Your task to perform on an android device: toggle airplane mode Image 0: 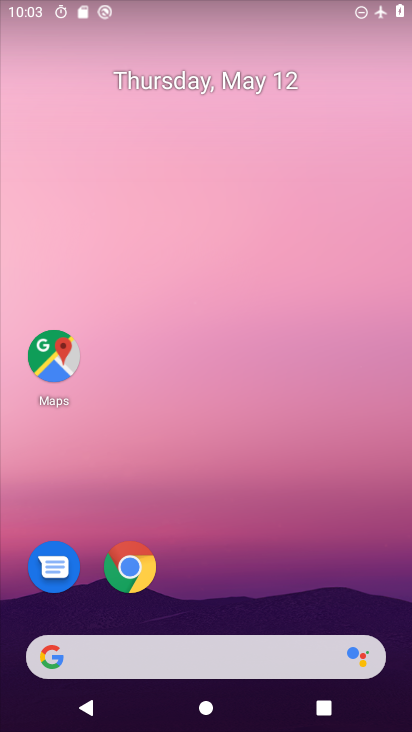
Step 0: drag from (244, 638) to (273, 153)
Your task to perform on an android device: toggle airplane mode Image 1: 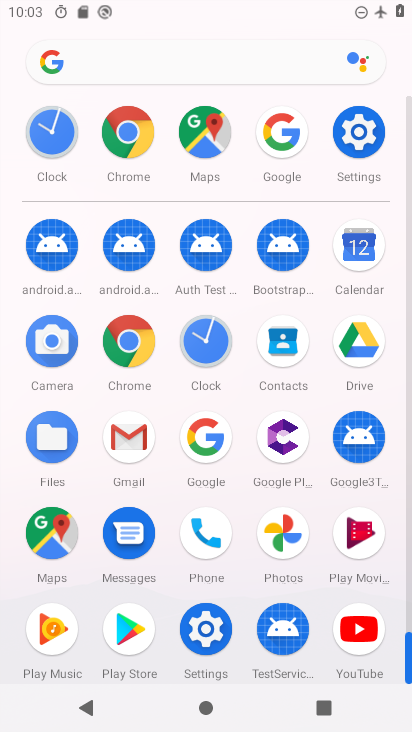
Step 1: click (382, 141)
Your task to perform on an android device: toggle airplane mode Image 2: 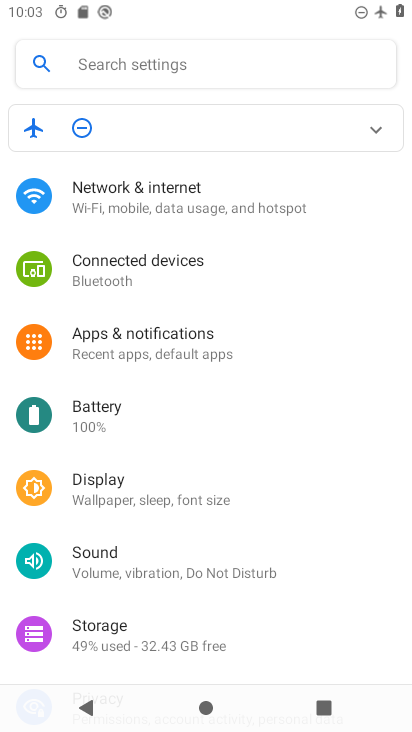
Step 2: drag from (184, 529) to (215, 276)
Your task to perform on an android device: toggle airplane mode Image 3: 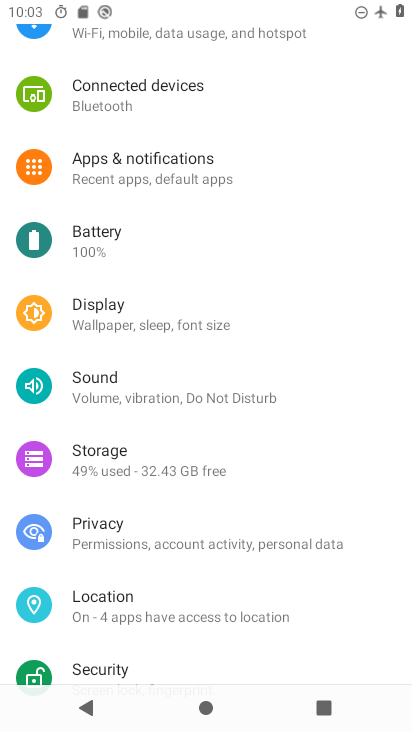
Step 3: drag from (214, 329) to (163, 699)
Your task to perform on an android device: toggle airplane mode Image 4: 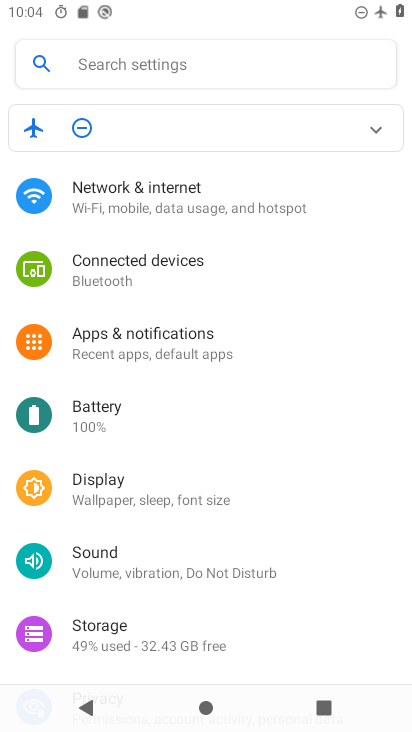
Step 4: click (228, 199)
Your task to perform on an android device: toggle airplane mode Image 5: 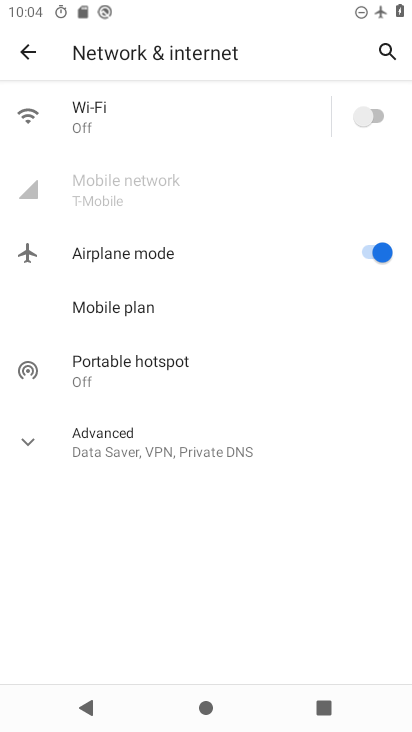
Step 5: click (373, 246)
Your task to perform on an android device: toggle airplane mode Image 6: 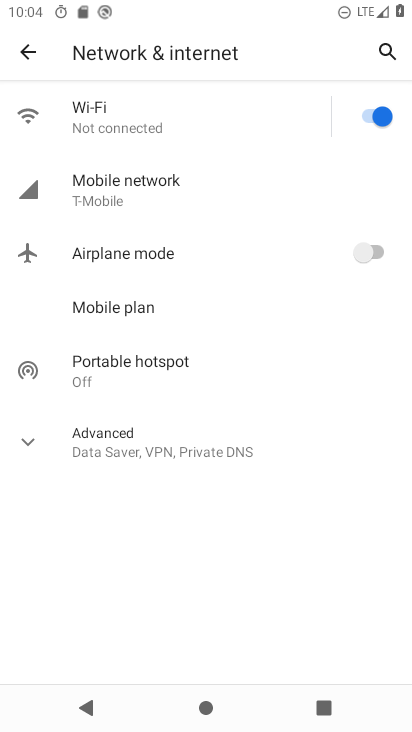
Step 6: task complete